Your task to perform on an android device: Open the Play Movies app and select the watchlist tab. Image 0: 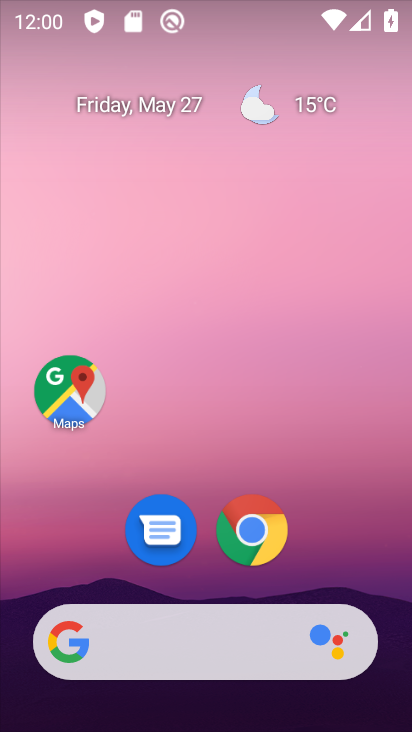
Step 0: drag from (68, 603) to (169, 198)
Your task to perform on an android device: Open the Play Movies app and select the watchlist tab. Image 1: 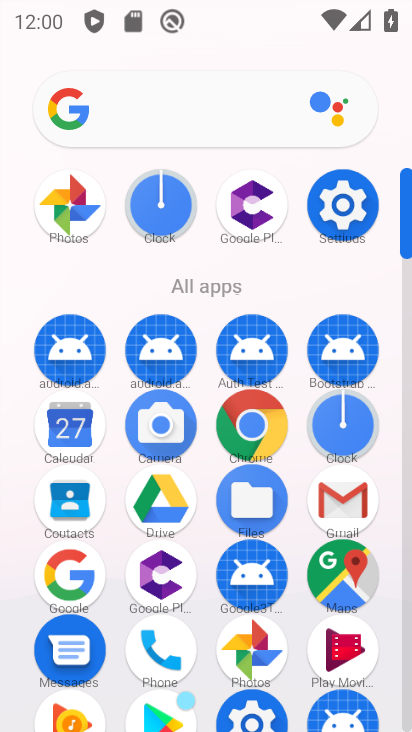
Step 1: drag from (181, 618) to (249, 355)
Your task to perform on an android device: Open the Play Movies app and select the watchlist tab. Image 2: 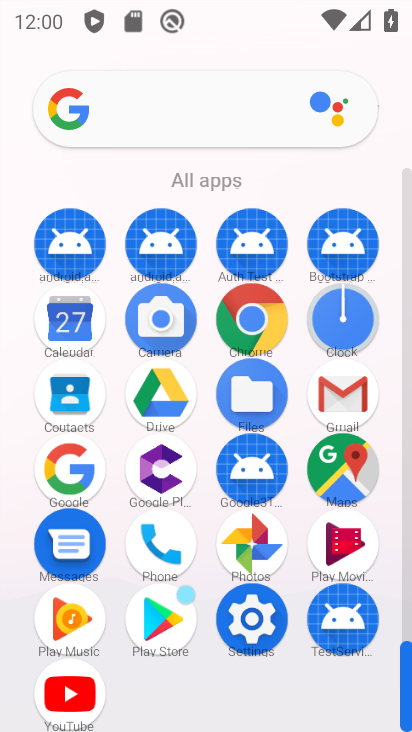
Step 2: click (360, 545)
Your task to perform on an android device: Open the Play Movies app and select the watchlist tab. Image 3: 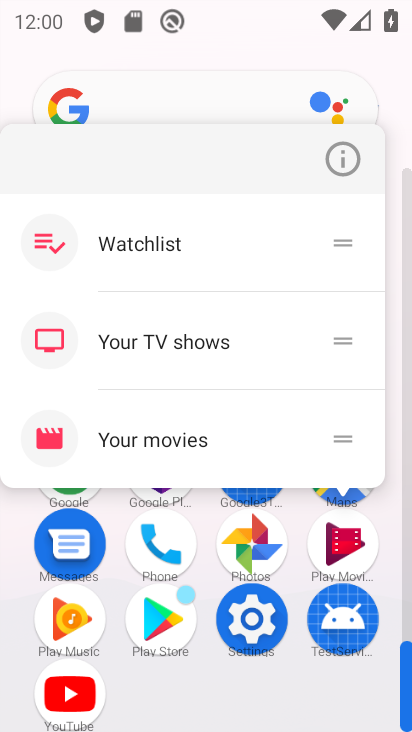
Step 3: click (336, 550)
Your task to perform on an android device: Open the Play Movies app and select the watchlist tab. Image 4: 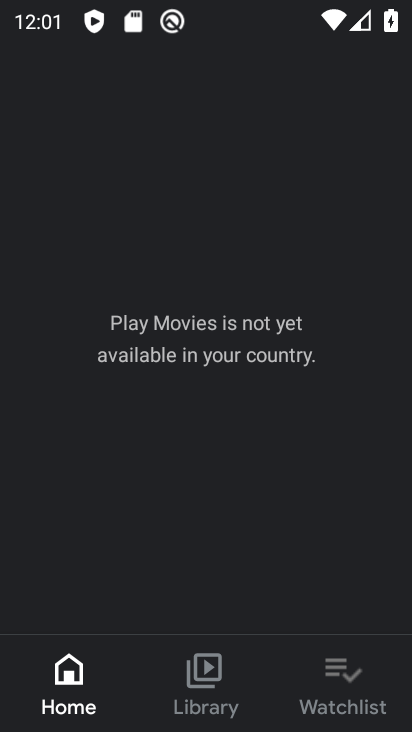
Step 4: click (345, 694)
Your task to perform on an android device: Open the Play Movies app and select the watchlist tab. Image 5: 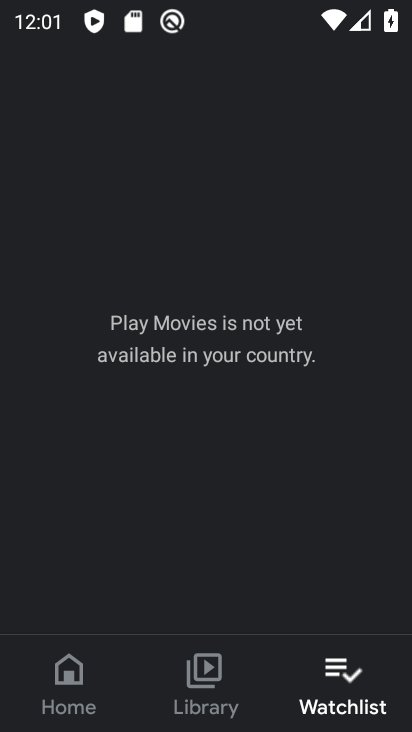
Step 5: task complete